Your task to perform on an android device: Open network settings Image 0: 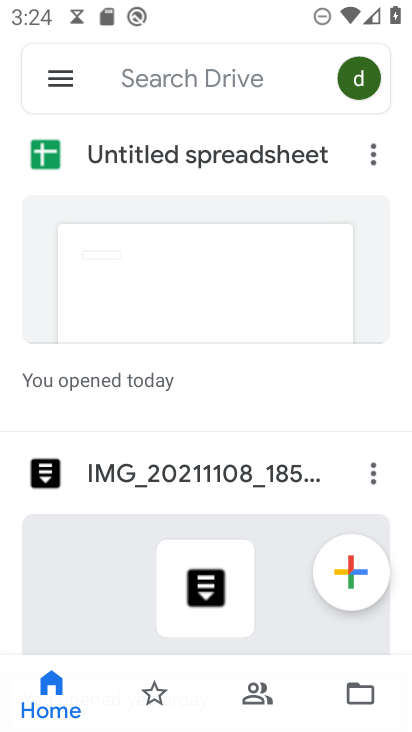
Step 0: press home button
Your task to perform on an android device: Open network settings Image 1: 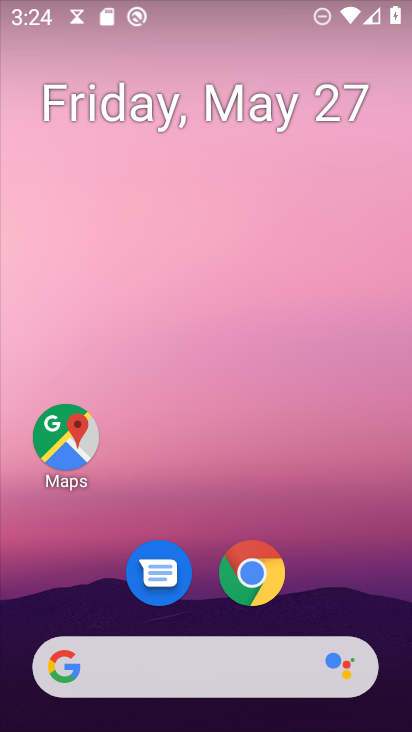
Step 1: drag from (356, 592) to (345, 1)
Your task to perform on an android device: Open network settings Image 2: 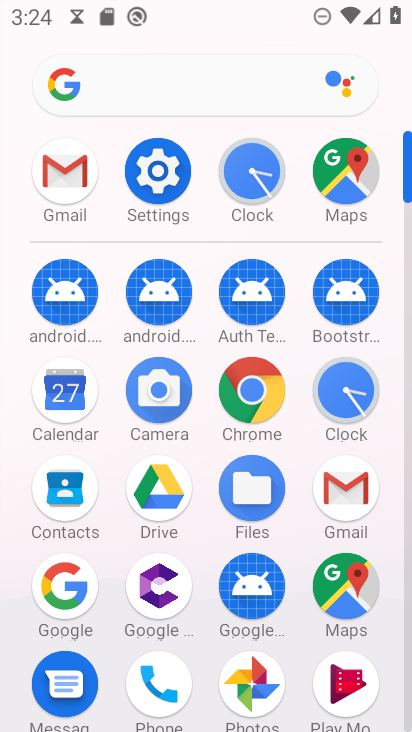
Step 2: click (167, 165)
Your task to perform on an android device: Open network settings Image 3: 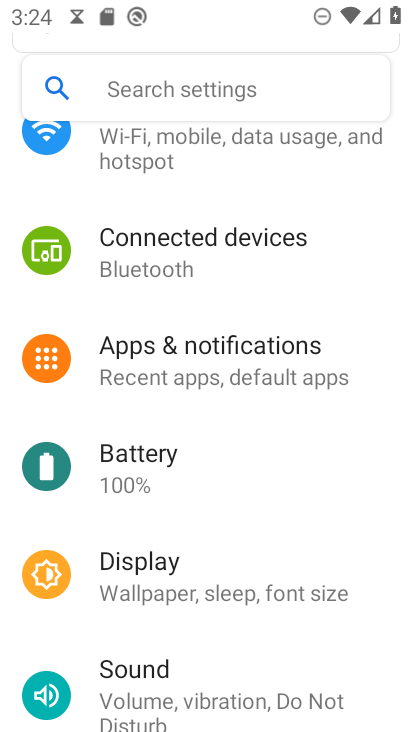
Step 3: drag from (167, 288) to (133, 543)
Your task to perform on an android device: Open network settings Image 4: 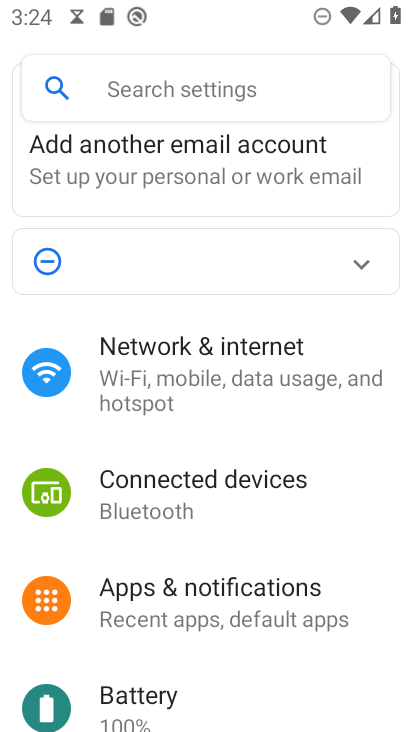
Step 4: click (145, 341)
Your task to perform on an android device: Open network settings Image 5: 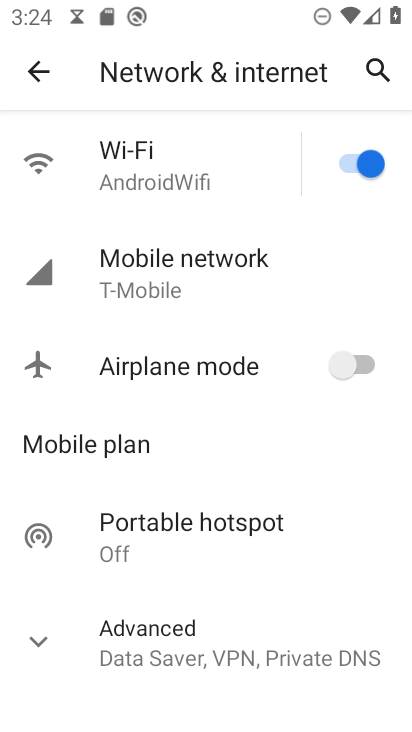
Step 5: click (141, 273)
Your task to perform on an android device: Open network settings Image 6: 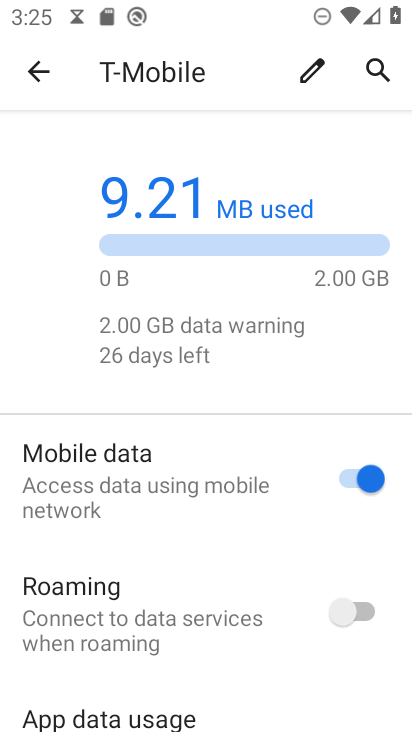
Step 6: task complete